Your task to perform on an android device: set an alarm Image 0: 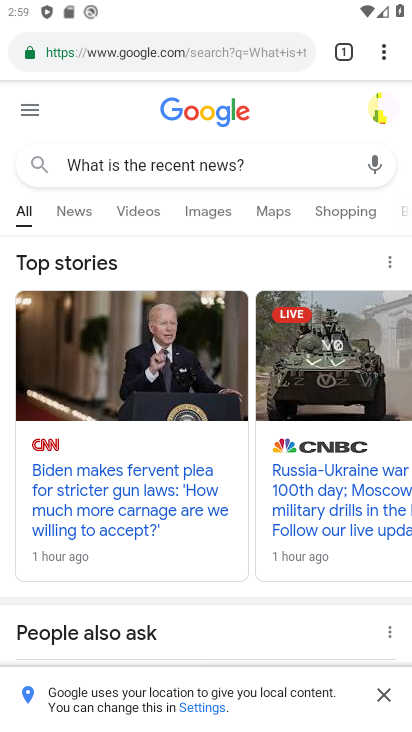
Step 0: press home button
Your task to perform on an android device: set an alarm Image 1: 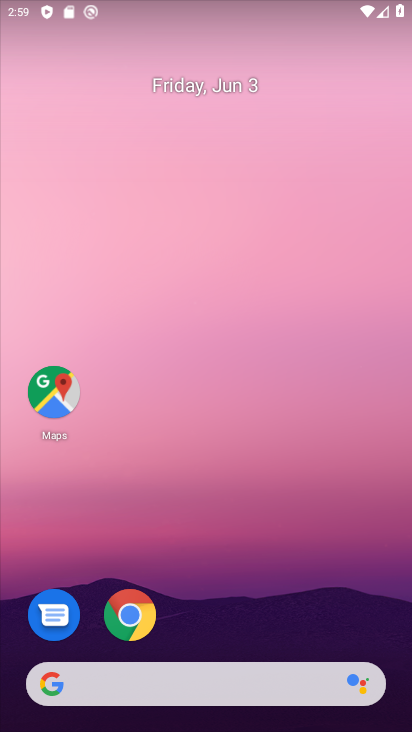
Step 1: drag from (203, 615) to (276, 235)
Your task to perform on an android device: set an alarm Image 2: 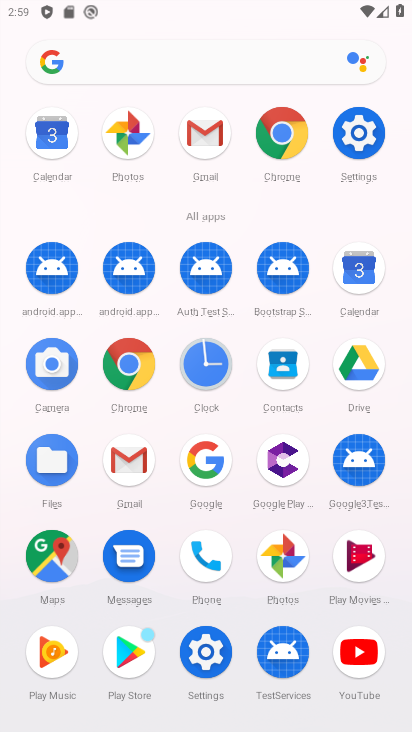
Step 2: click (202, 366)
Your task to perform on an android device: set an alarm Image 3: 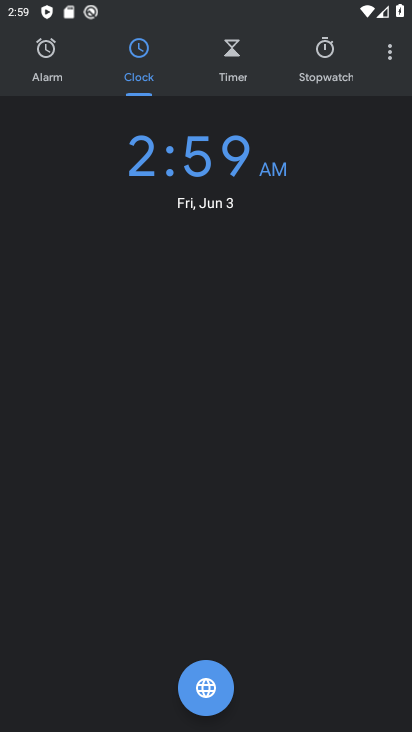
Step 3: click (55, 71)
Your task to perform on an android device: set an alarm Image 4: 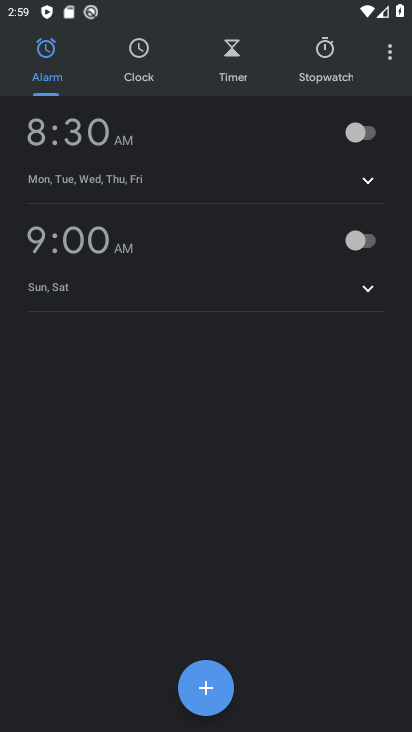
Step 4: click (365, 136)
Your task to perform on an android device: set an alarm Image 5: 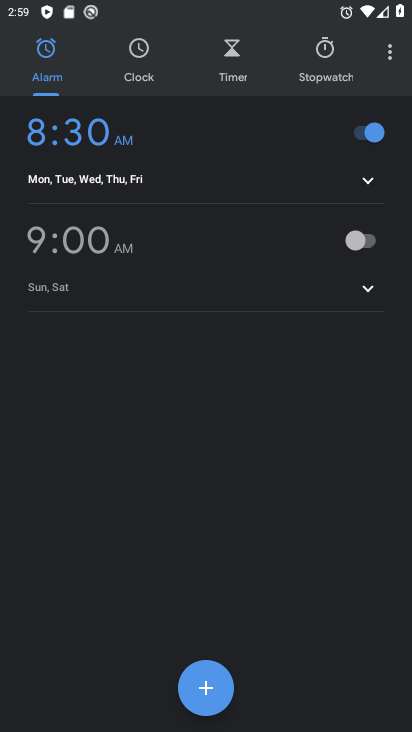
Step 5: task complete